Your task to perform on an android device: Clear all items from cart on costco.com. Add macbook pro 15 inch to the cart on costco.com Image 0: 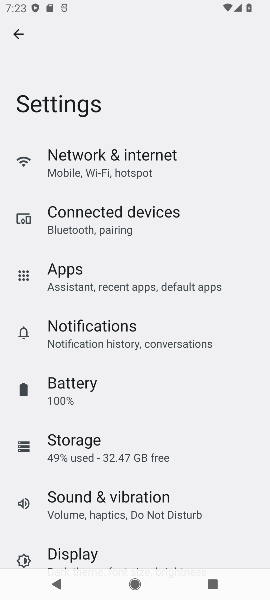
Step 0: press home button
Your task to perform on an android device: Clear all items from cart on costco.com. Add macbook pro 15 inch to the cart on costco.com Image 1: 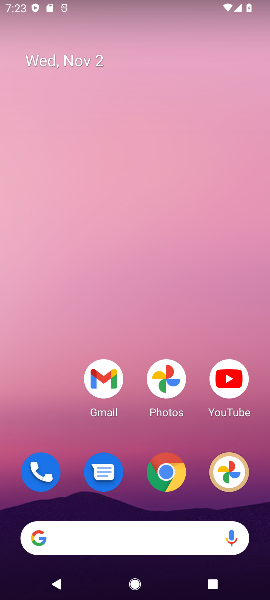
Step 1: click (168, 467)
Your task to perform on an android device: Clear all items from cart on costco.com. Add macbook pro 15 inch to the cart on costco.com Image 2: 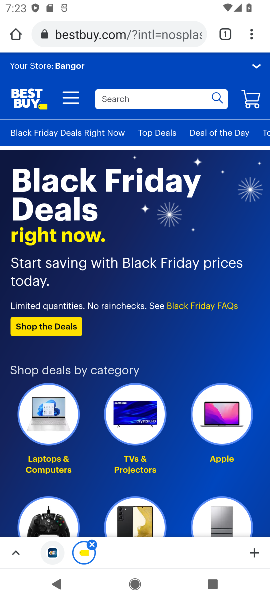
Step 2: click (132, 29)
Your task to perform on an android device: Clear all items from cart on costco.com. Add macbook pro 15 inch to the cart on costco.com Image 3: 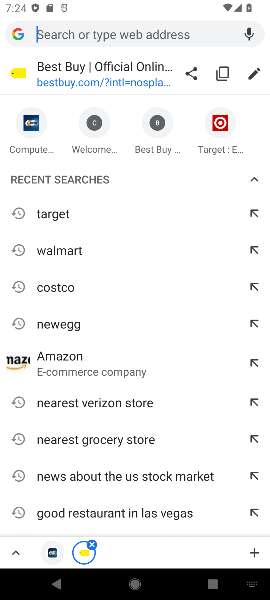
Step 3: type "costco.com"
Your task to perform on an android device: Clear all items from cart on costco.com. Add macbook pro 15 inch to the cart on costco.com Image 4: 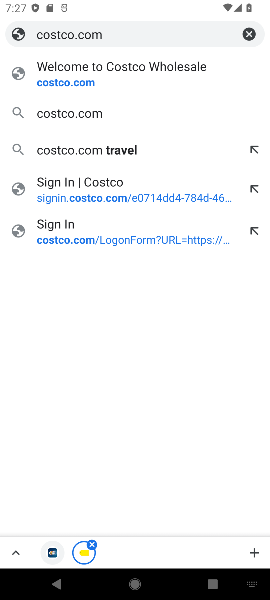
Step 4: click (45, 78)
Your task to perform on an android device: Clear all items from cart on costco.com. Add macbook pro 15 inch to the cart on costco.com Image 5: 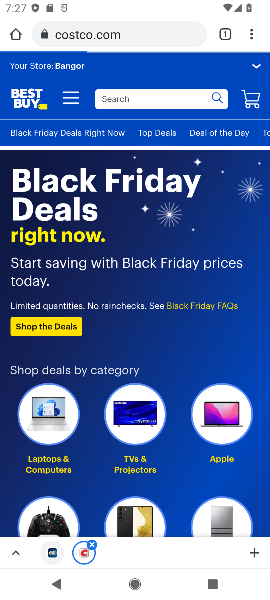
Step 5: task complete